Your task to perform on an android device: Open sound settings Image 0: 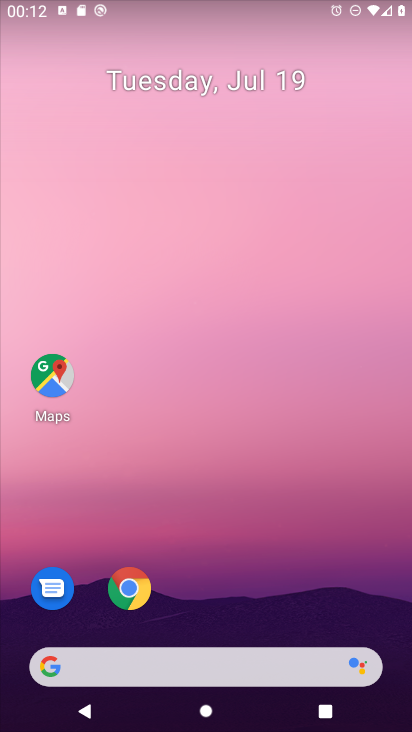
Step 0: drag from (379, 615) to (343, 95)
Your task to perform on an android device: Open sound settings Image 1: 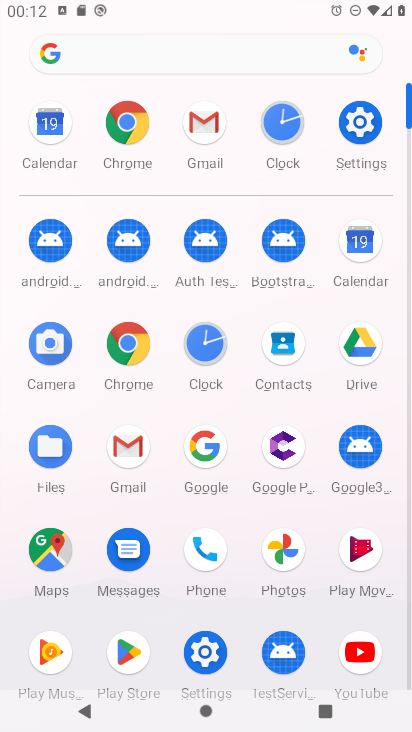
Step 1: click (207, 653)
Your task to perform on an android device: Open sound settings Image 2: 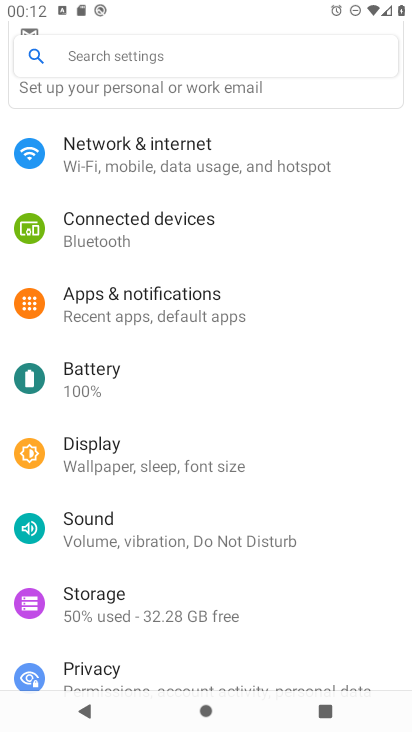
Step 2: click (98, 531)
Your task to perform on an android device: Open sound settings Image 3: 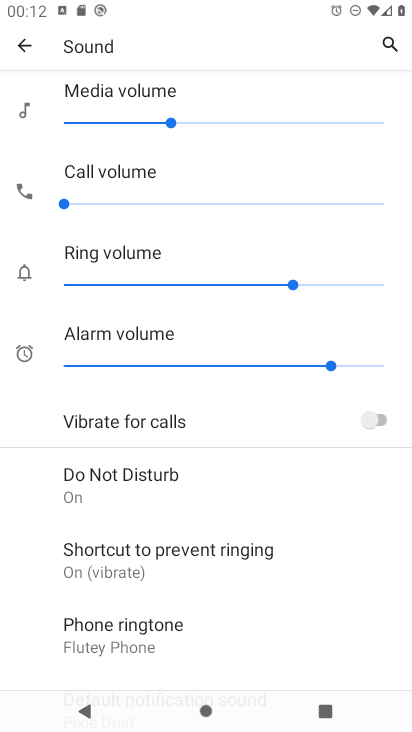
Step 3: drag from (274, 597) to (268, 285)
Your task to perform on an android device: Open sound settings Image 4: 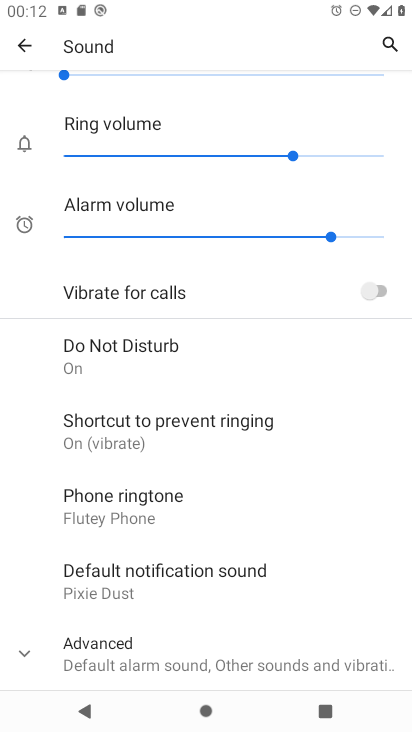
Step 4: click (28, 652)
Your task to perform on an android device: Open sound settings Image 5: 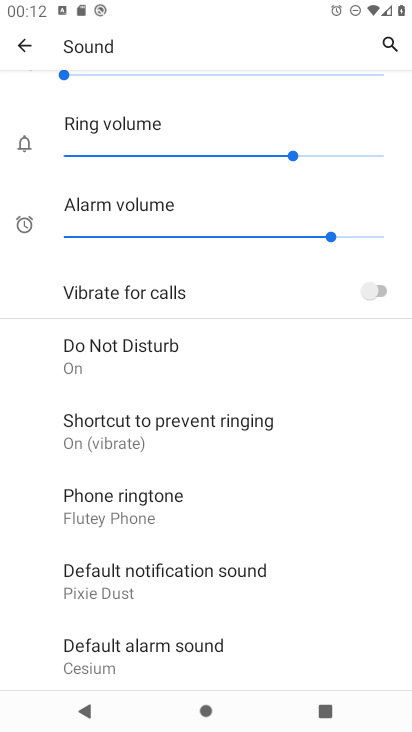
Step 5: task complete